Your task to perform on an android device: turn off translation in the chrome app Image 0: 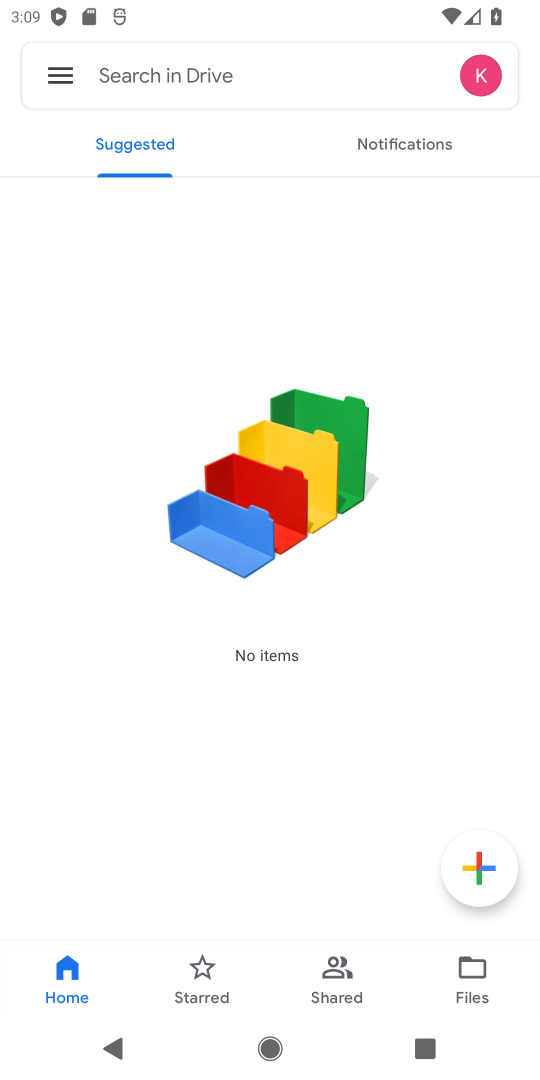
Step 0: press home button
Your task to perform on an android device: turn off translation in the chrome app Image 1: 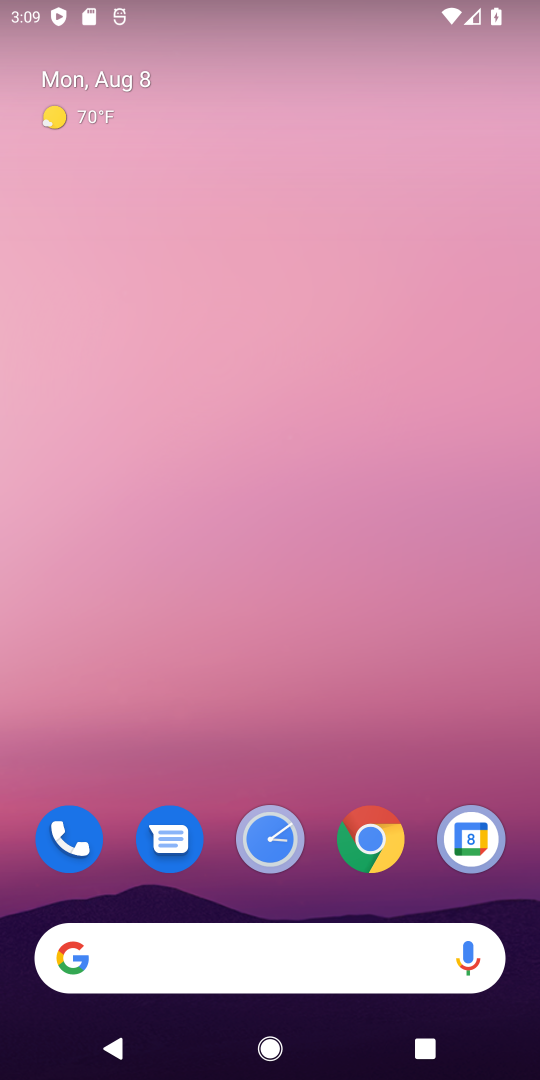
Step 1: drag from (435, 685) to (470, 219)
Your task to perform on an android device: turn off translation in the chrome app Image 2: 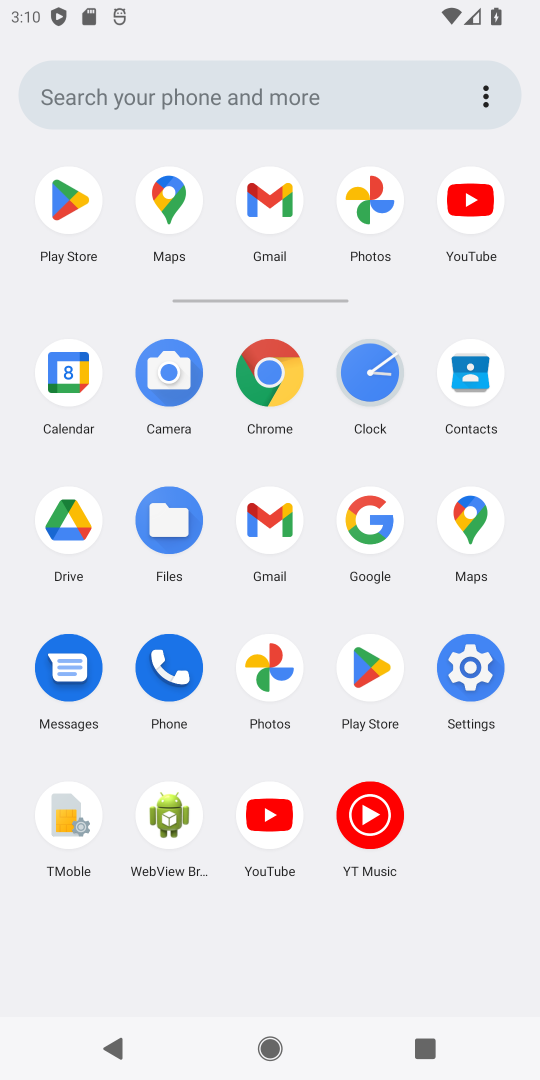
Step 2: click (275, 371)
Your task to perform on an android device: turn off translation in the chrome app Image 3: 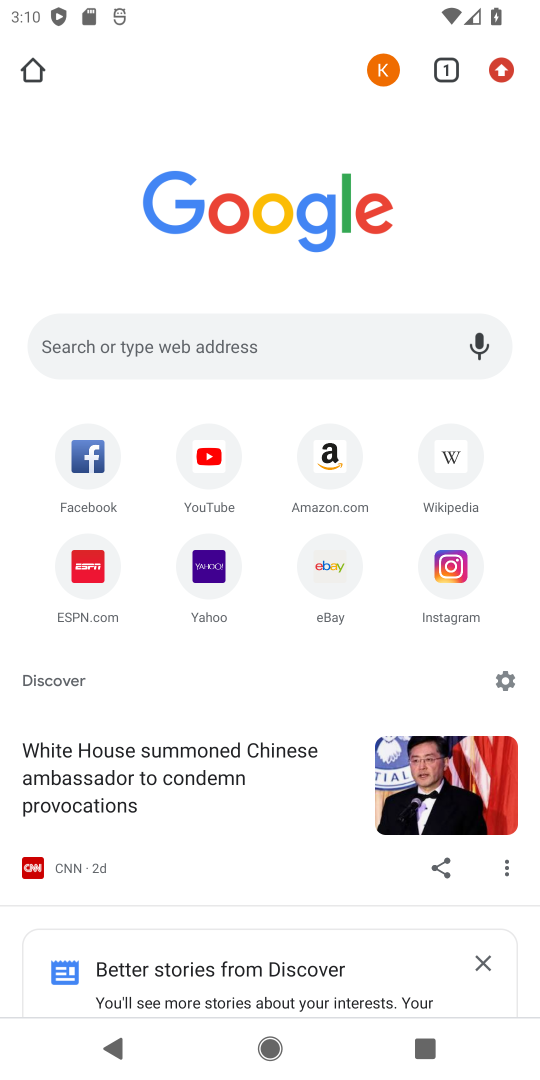
Step 3: click (507, 70)
Your task to perform on an android device: turn off translation in the chrome app Image 4: 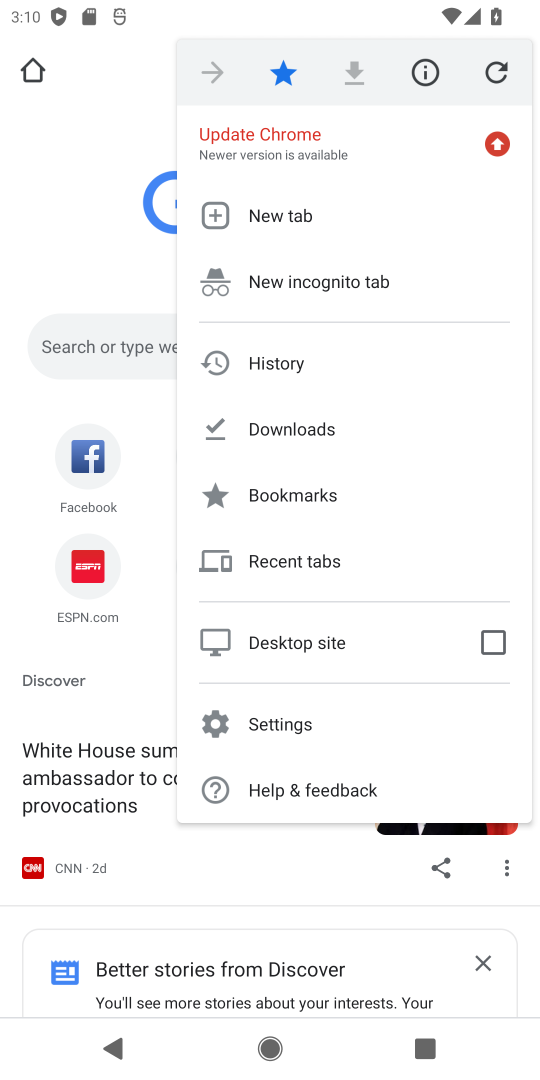
Step 4: click (314, 722)
Your task to perform on an android device: turn off translation in the chrome app Image 5: 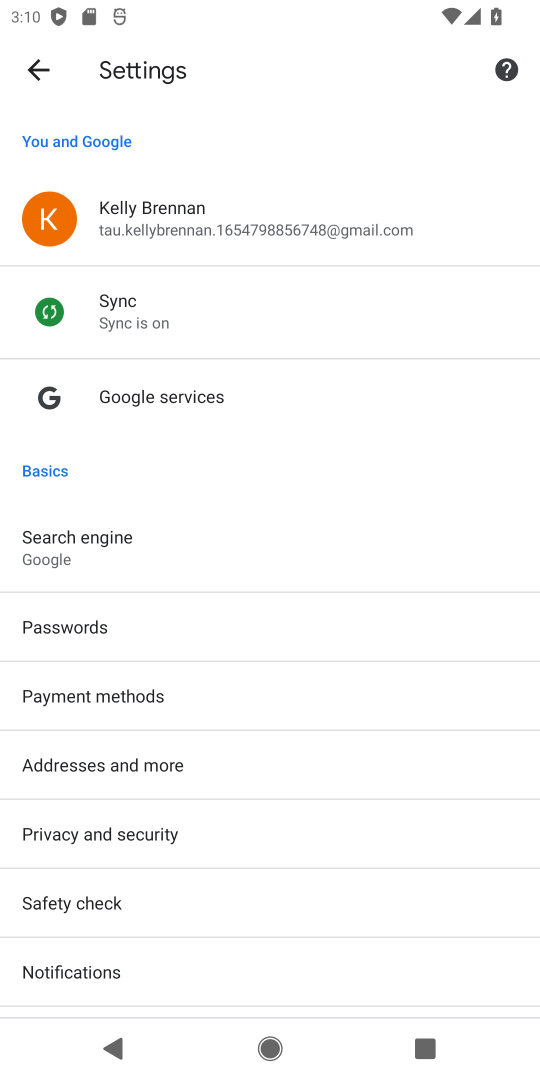
Step 5: drag from (366, 780) to (377, 638)
Your task to perform on an android device: turn off translation in the chrome app Image 6: 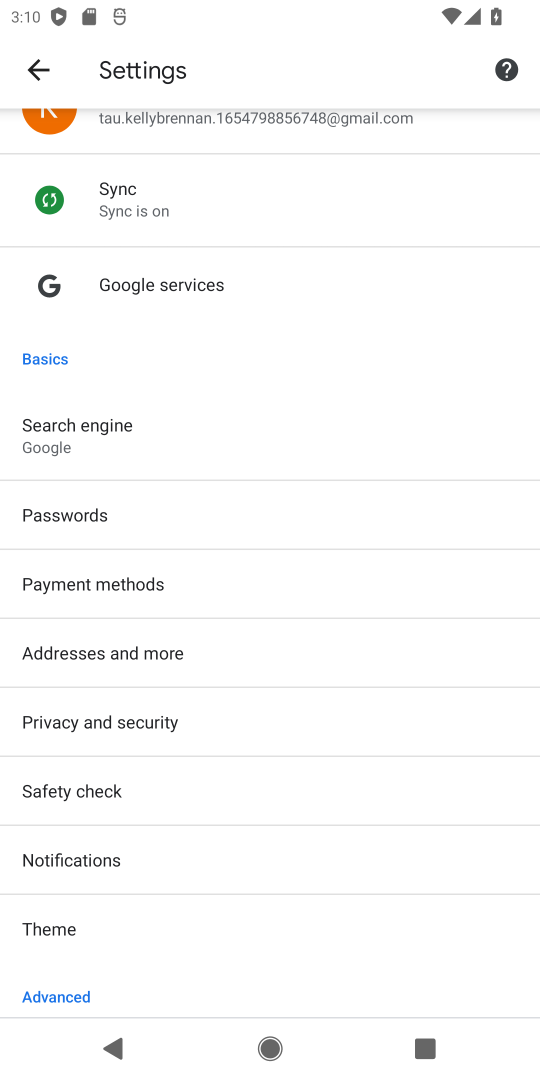
Step 6: drag from (360, 777) to (374, 614)
Your task to perform on an android device: turn off translation in the chrome app Image 7: 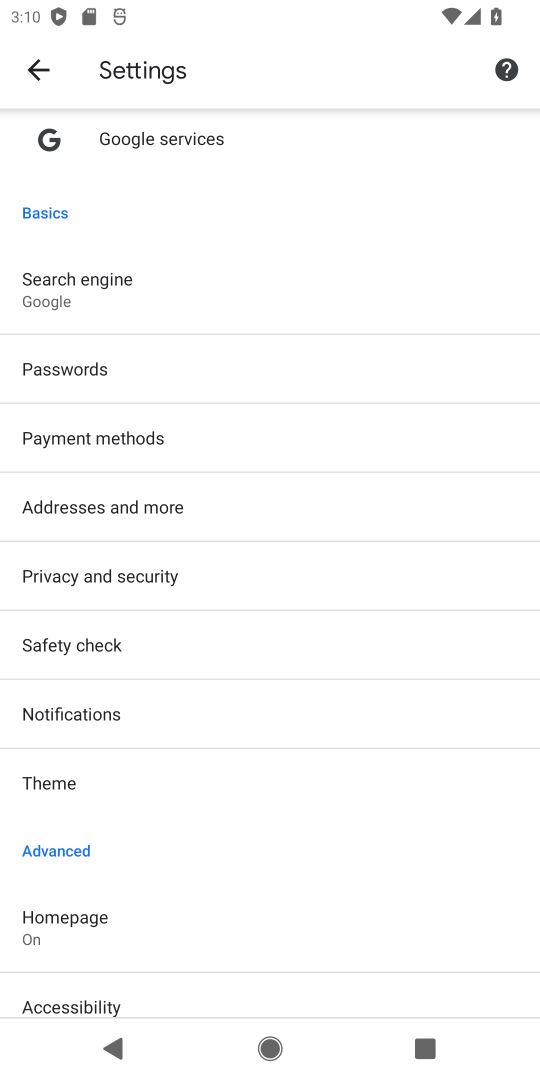
Step 7: drag from (365, 829) to (400, 635)
Your task to perform on an android device: turn off translation in the chrome app Image 8: 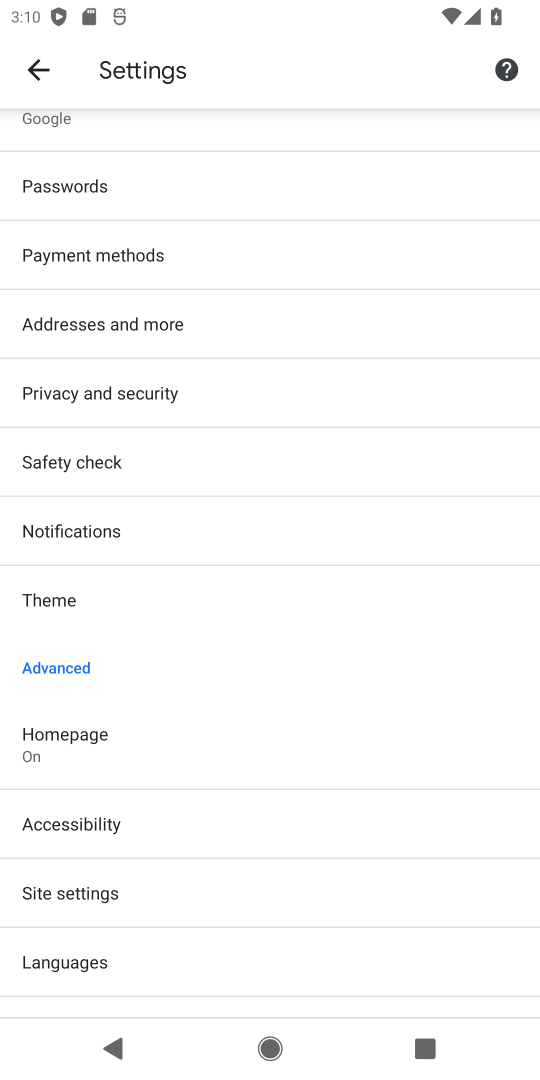
Step 8: drag from (370, 878) to (397, 642)
Your task to perform on an android device: turn off translation in the chrome app Image 9: 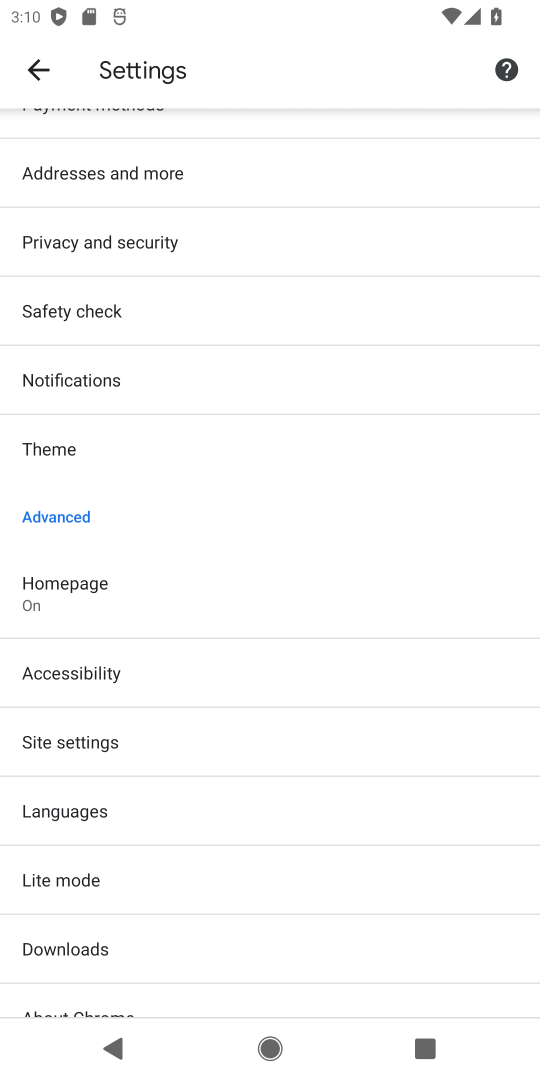
Step 9: click (388, 813)
Your task to perform on an android device: turn off translation in the chrome app Image 10: 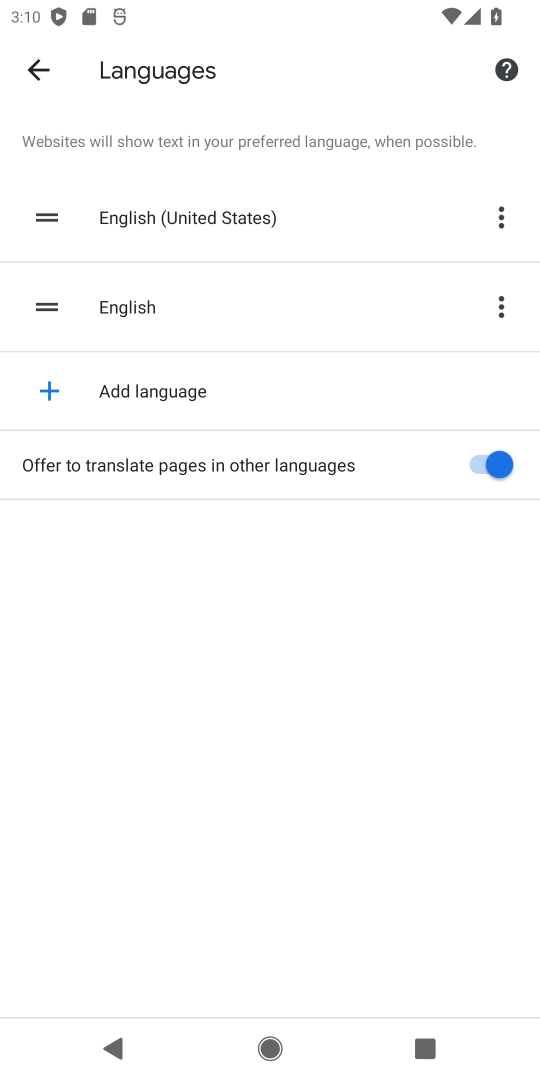
Step 10: click (496, 463)
Your task to perform on an android device: turn off translation in the chrome app Image 11: 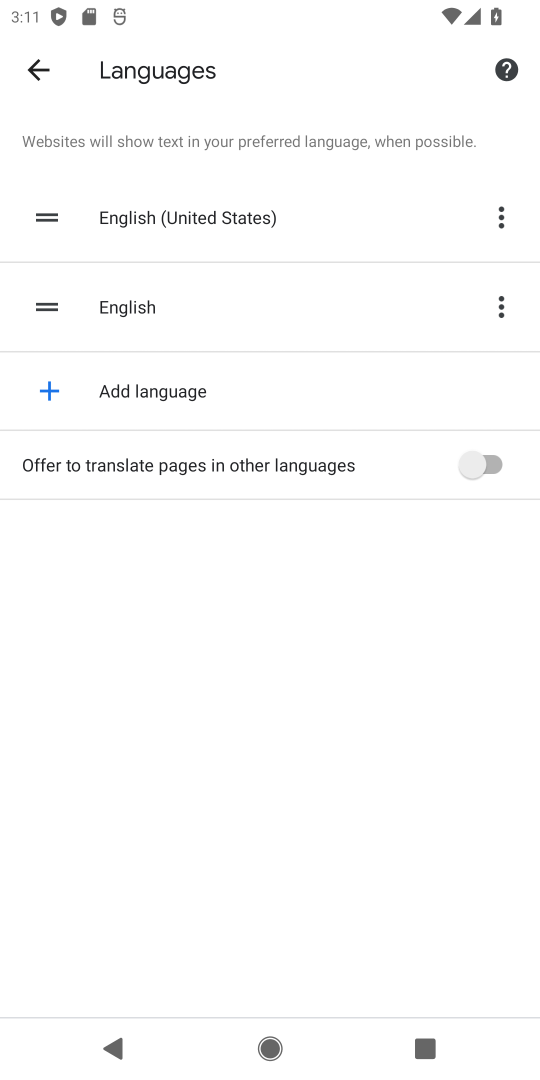
Step 11: task complete